Your task to perform on an android device: set an alarm Image 0: 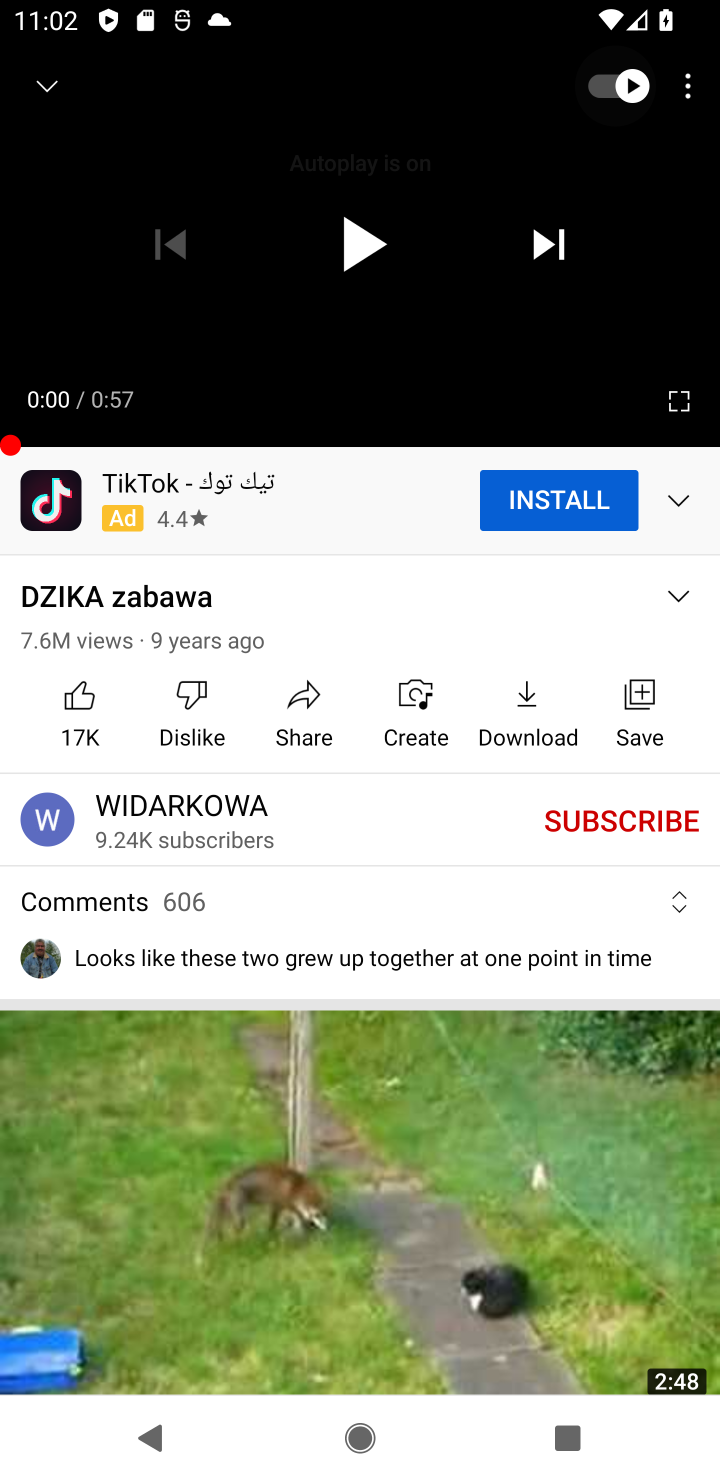
Step 0: press home button
Your task to perform on an android device: set an alarm Image 1: 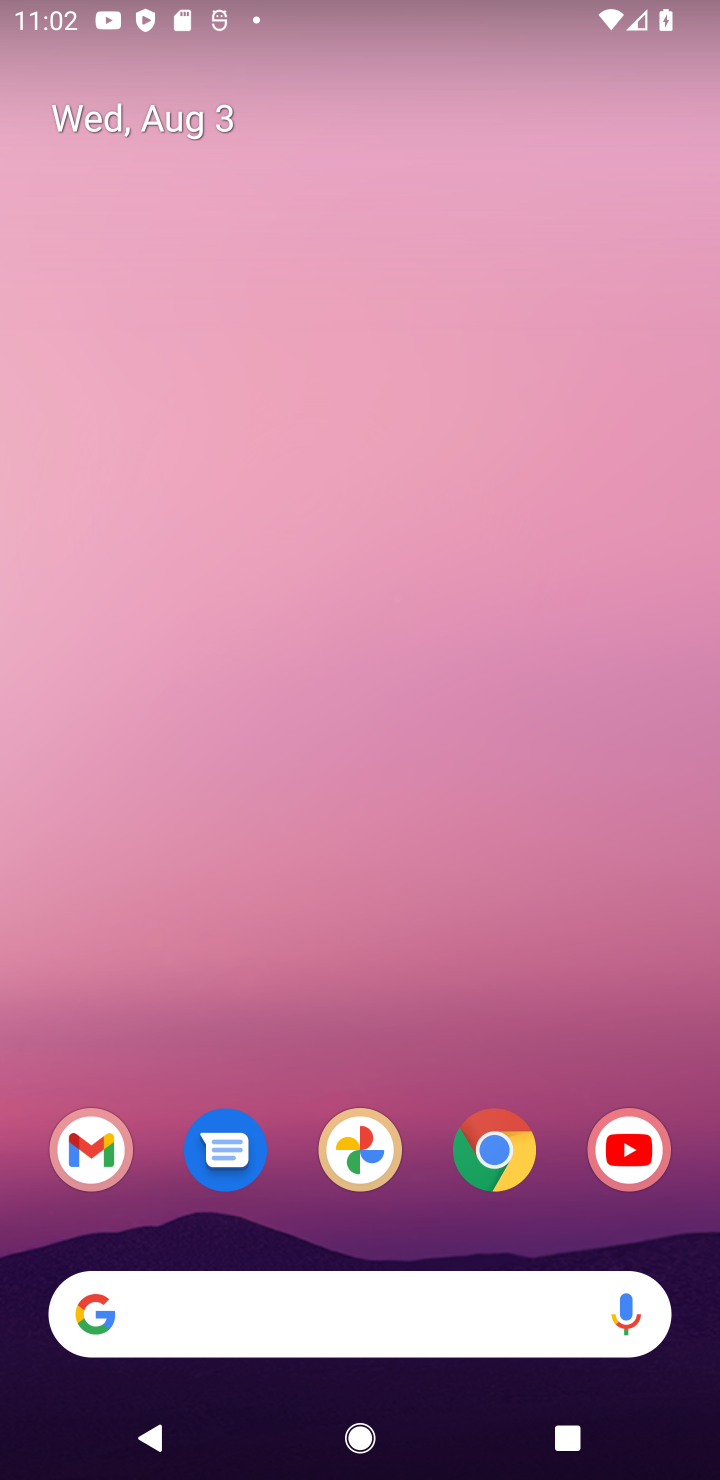
Step 1: press home button
Your task to perform on an android device: set an alarm Image 2: 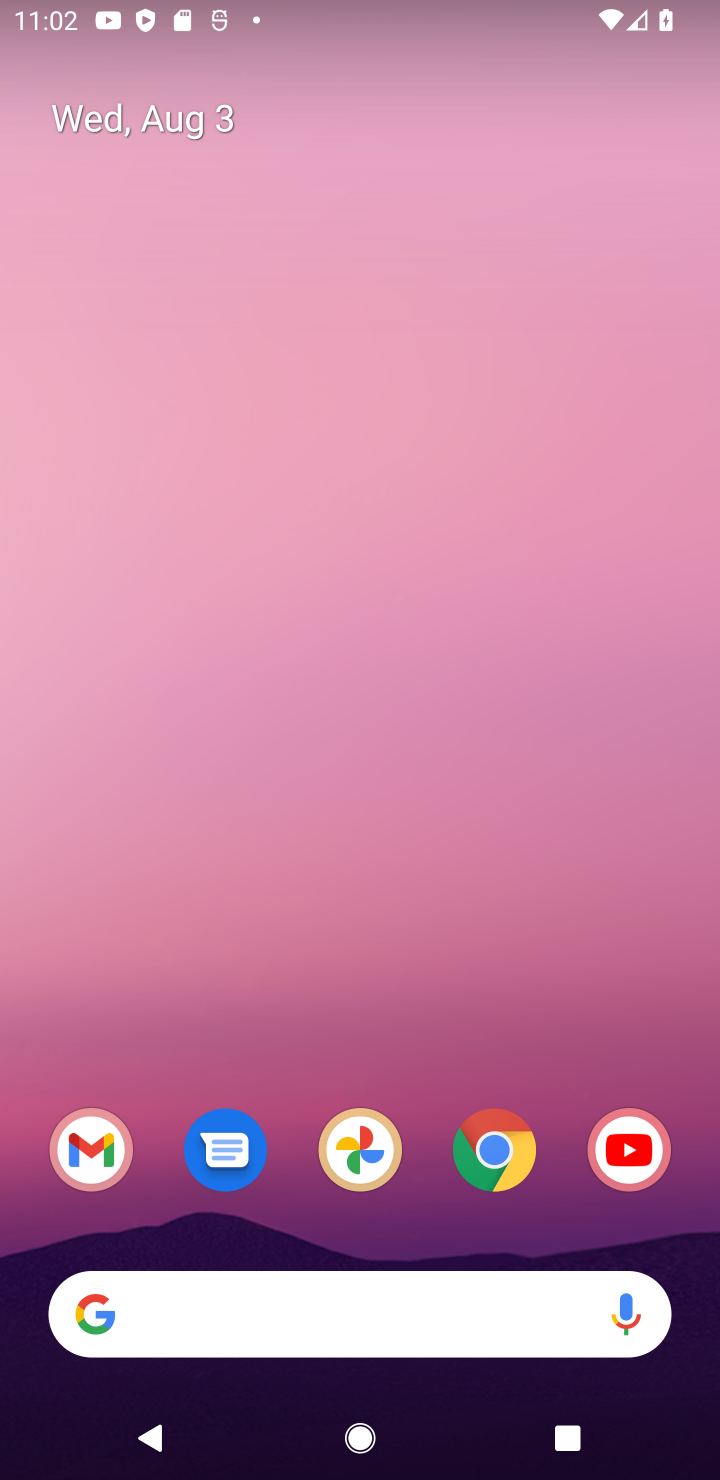
Step 2: drag from (413, 805) to (508, 173)
Your task to perform on an android device: set an alarm Image 3: 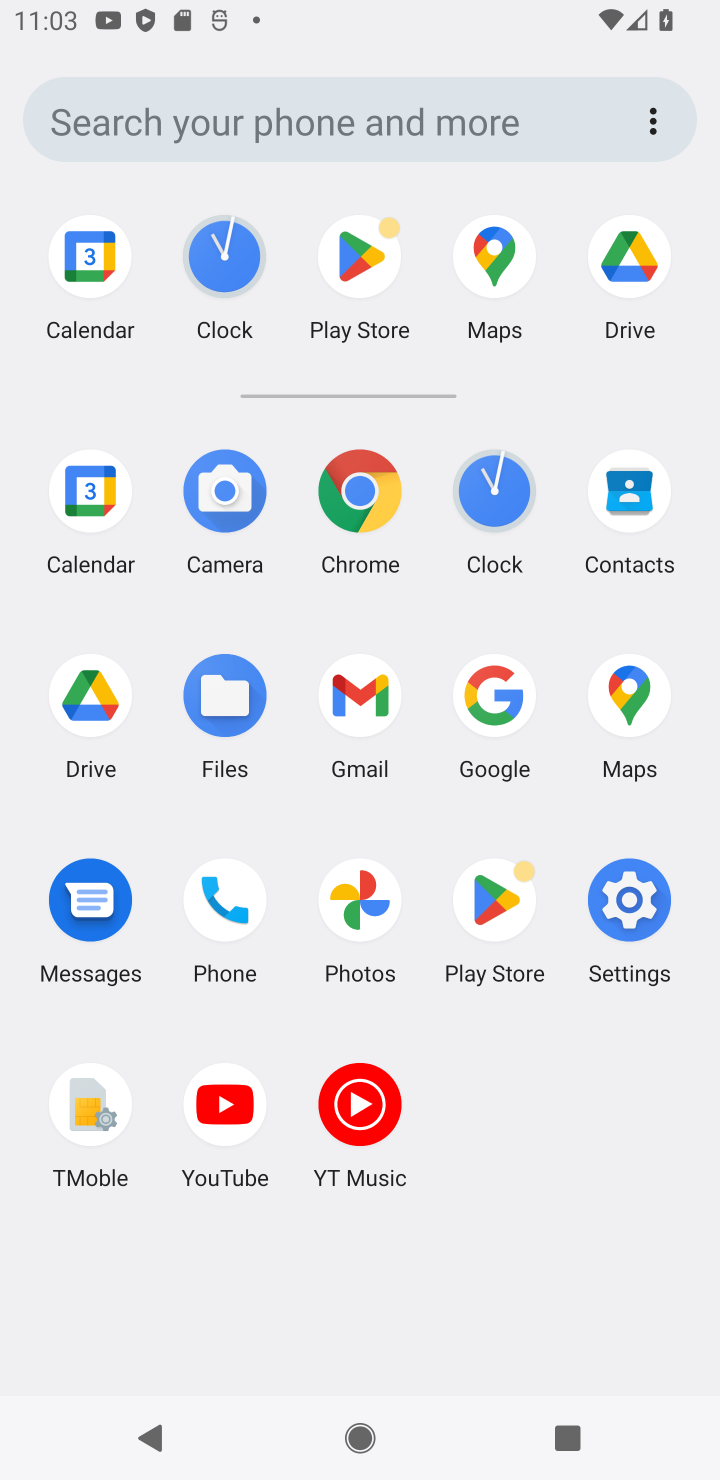
Step 3: click (237, 261)
Your task to perform on an android device: set an alarm Image 4: 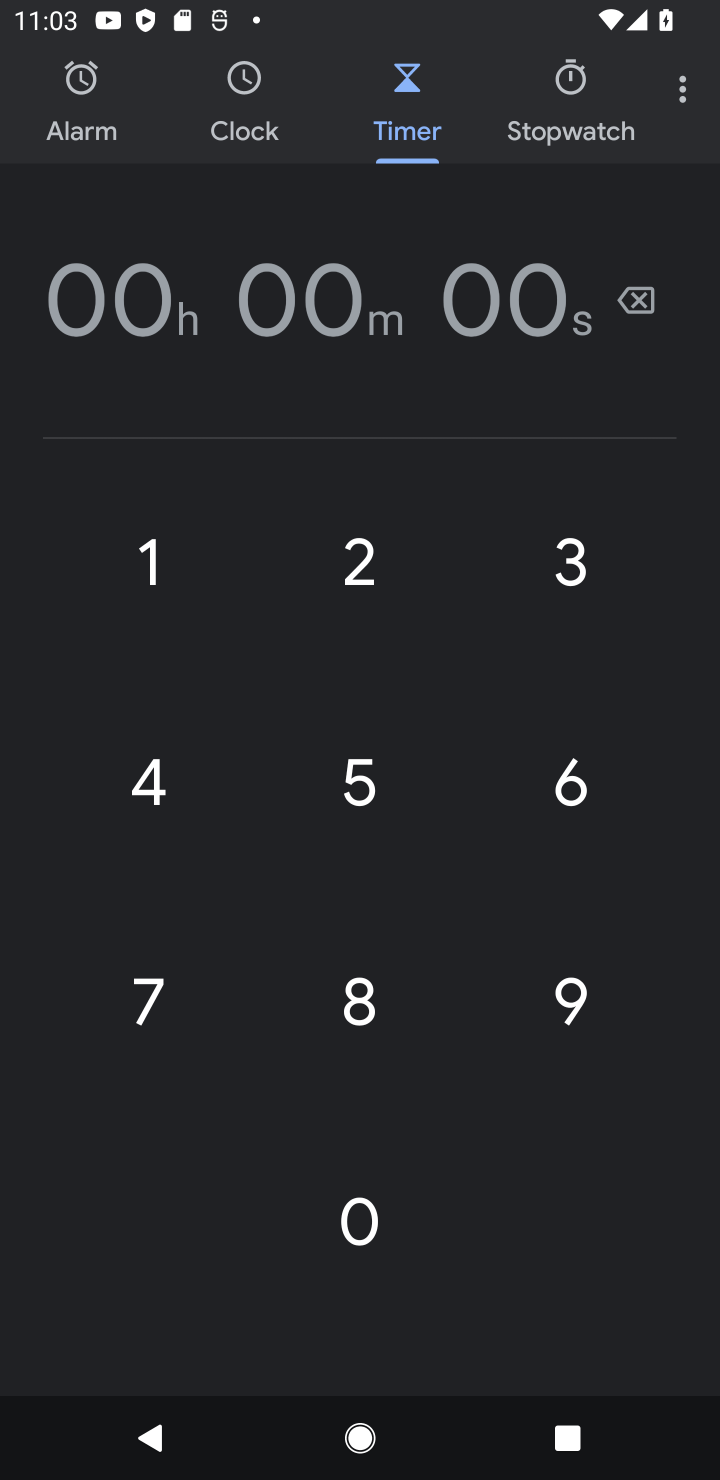
Step 4: click (84, 102)
Your task to perform on an android device: set an alarm Image 5: 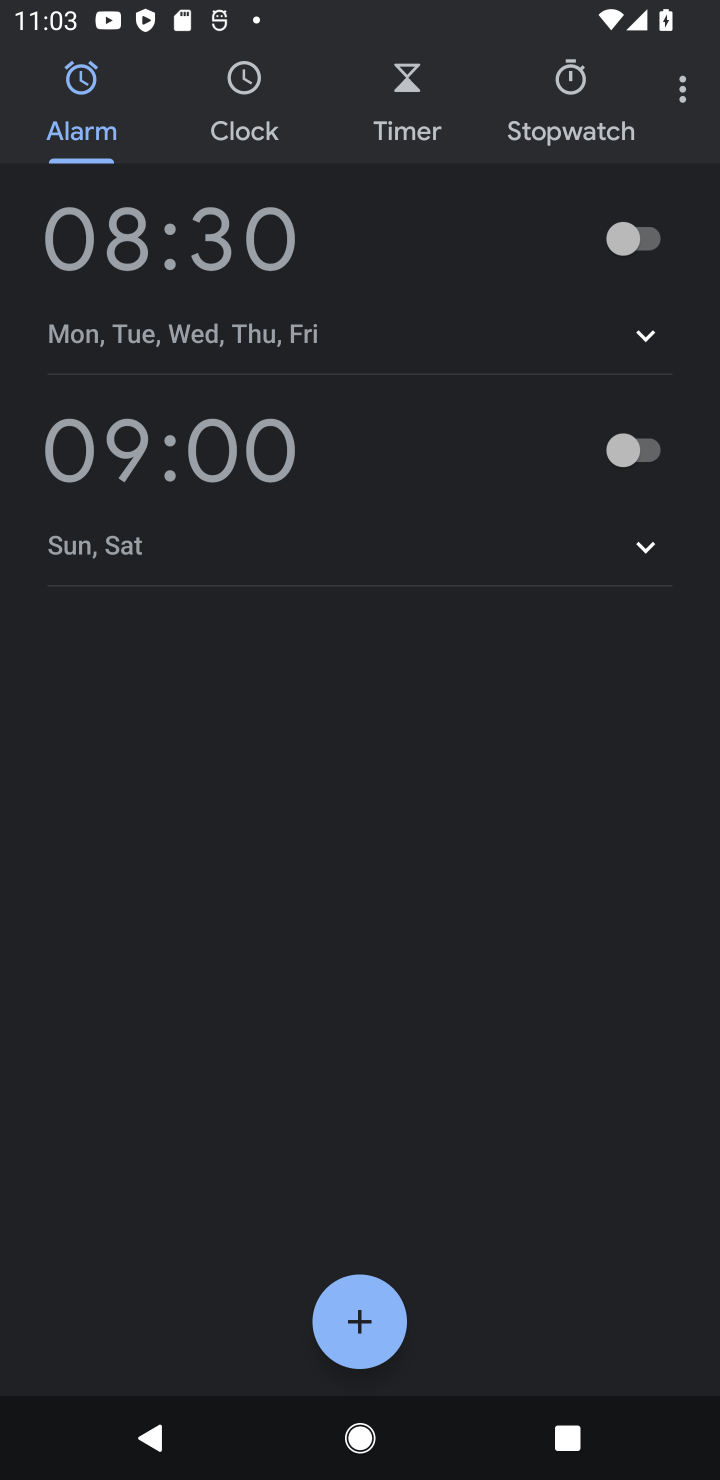
Step 5: click (372, 1317)
Your task to perform on an android device: set an alarm Image 6: 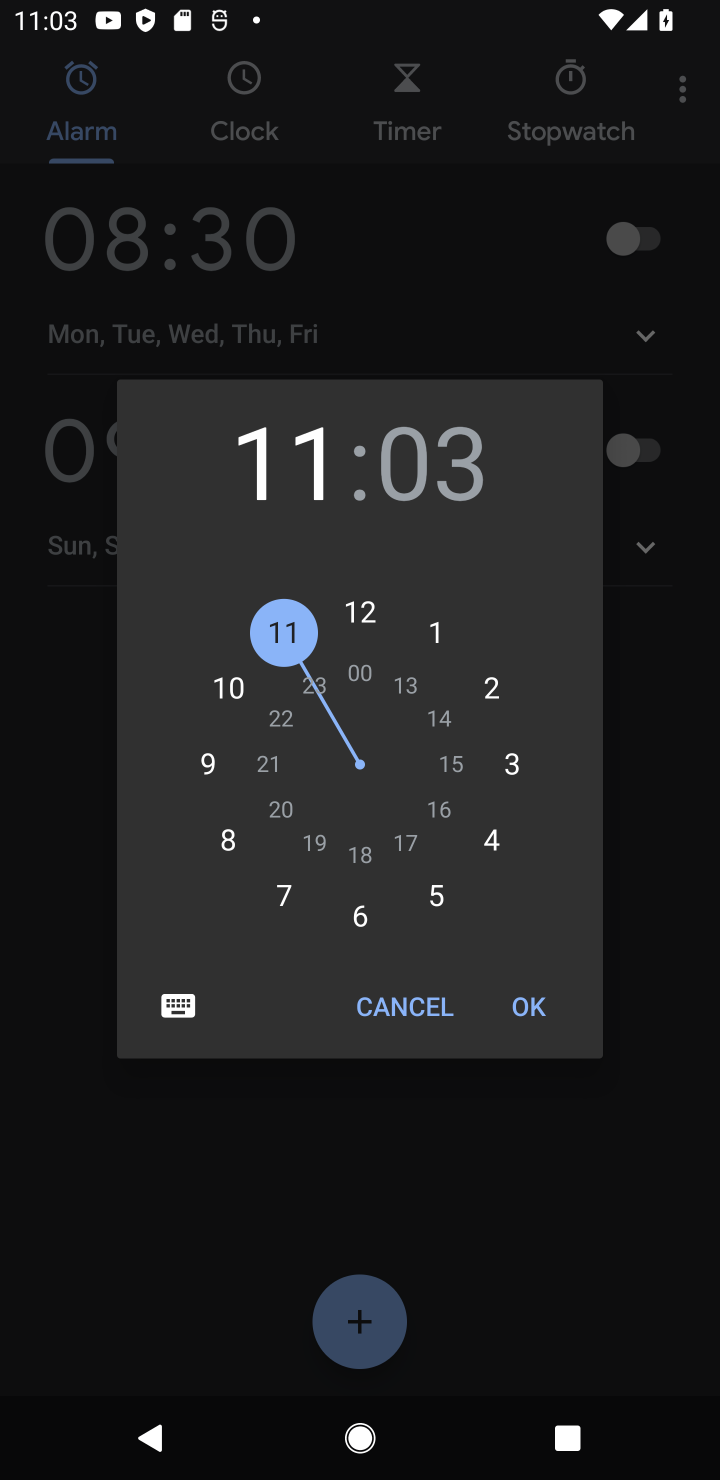
Step 6: click (523, 1007)
Your task to perform on an android device: set an alarm Image 7: 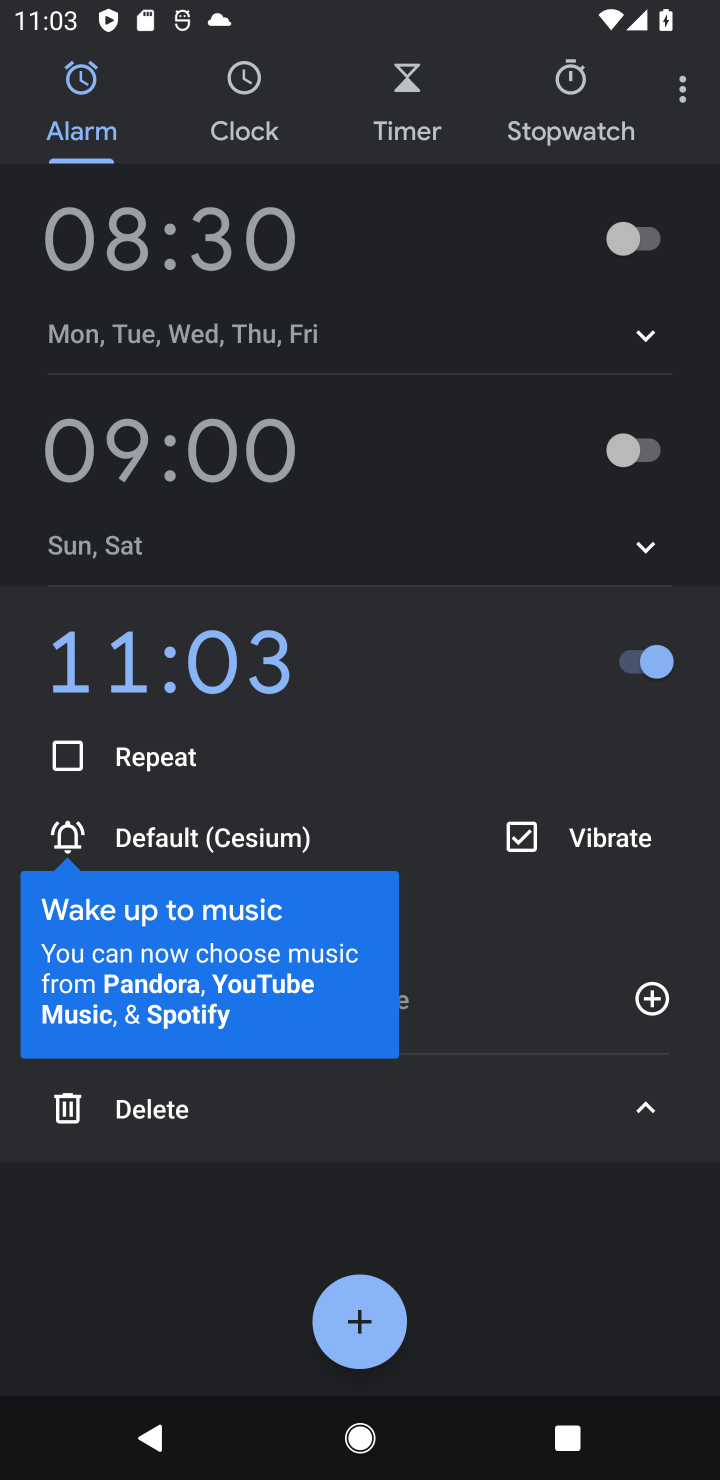
Step 7: task complete